Your task to perform on an android device: turn off smart reply in the gmail app Image 0: 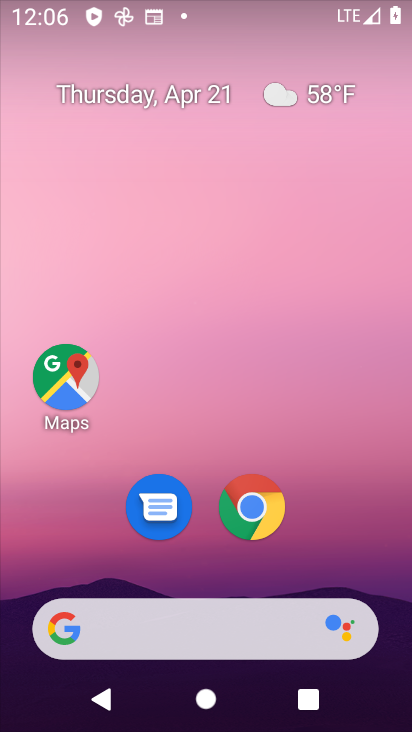
Step 0: drag from (301, 507) to (326, 61)
Your task to perform on an android device: turn off smart reply in the gmail app Image 1: 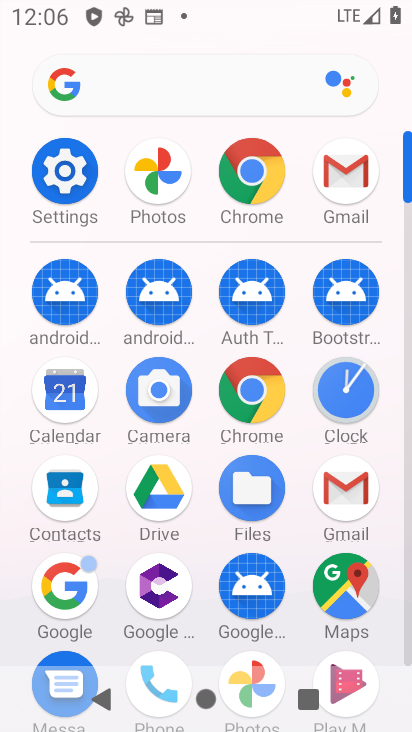
Step 1: click (352, 508)
Your task to perform on an android device: turn off smart reply in the gmail app Image 2: 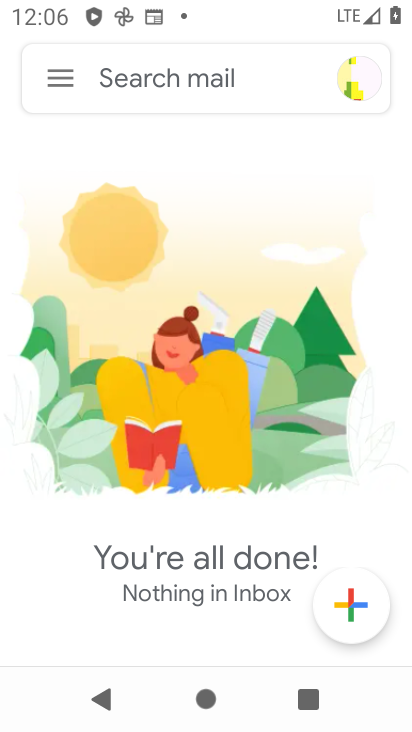
Step 2: click (63, 79)
Your task to perform on an android device: turn off smart reply in the gmail app Image 3: 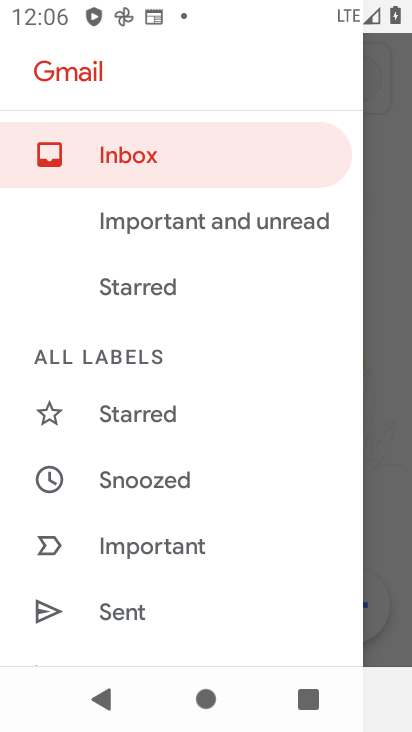
Step 3: drag from (282, 547) to (296, 375)
Your task to perform on an android device: turn off smart reply in the gmail app Image 4: 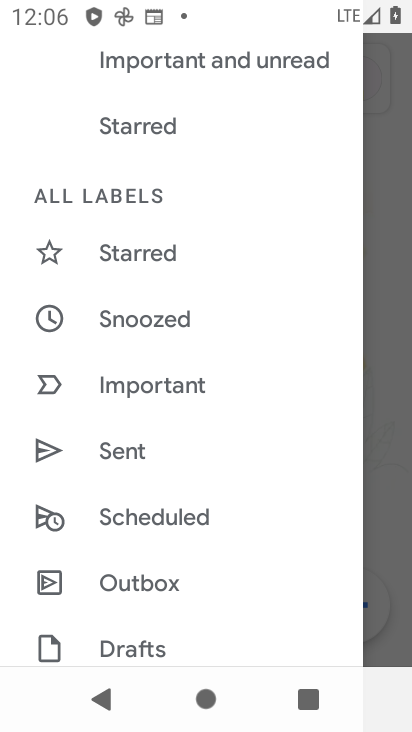
Step 4: drag from (278, 574) to (279, 381)
Your task to perform on an android device: turn off smart reply in the gmail app Image 5: 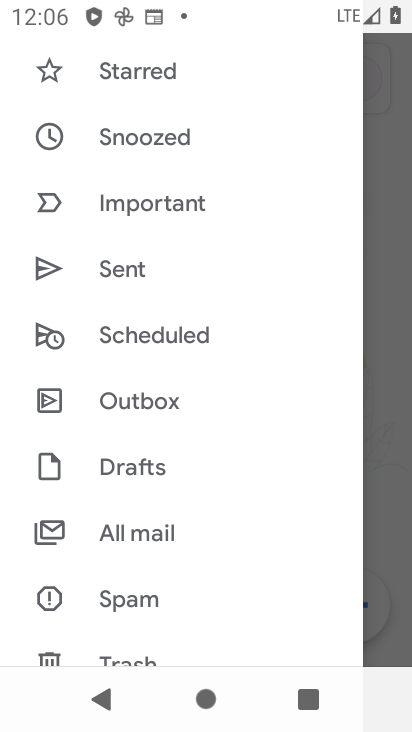
Step 5: drag from (271, 525) to (278, 341)
Your task to perform on an android device: turn off smart reply in the gmail app Image 6: 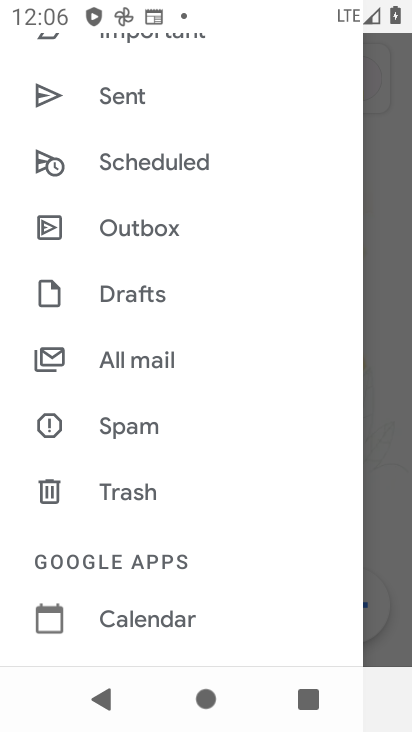
Step 6: drag from (263, 557) to (268, 372)
Your task to perform on an android device: turn off smart reply in the gmail app Image 7: 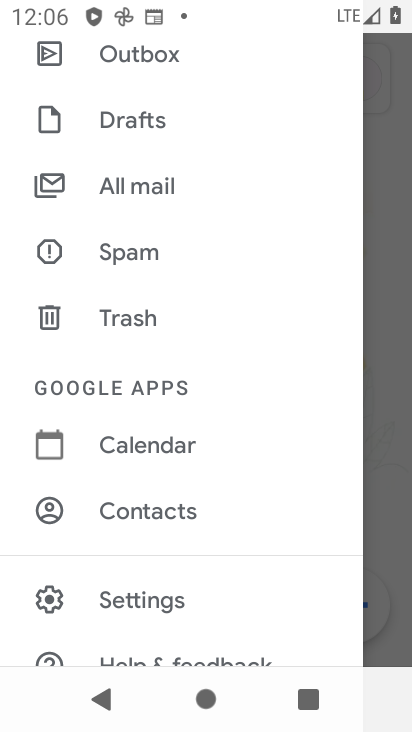
Step 7: drag from (267, 605) to (280, 419)
Your task to perform on an android device: turn off smart reply in the gmail app Image 8: 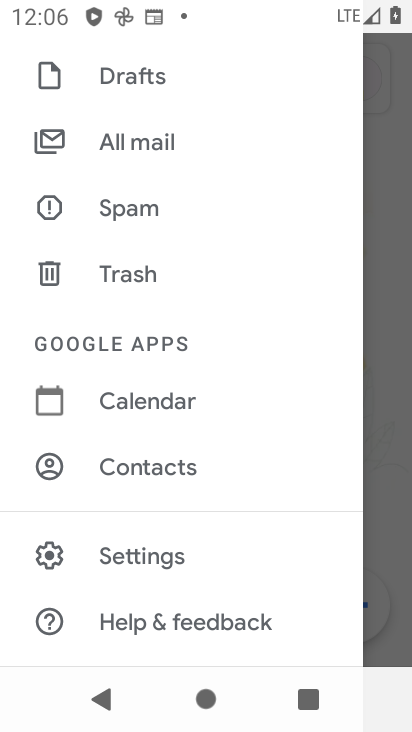
Step 8: click (175, 556)
Your task to perform on an android device: turn off smart reply in the gmail app Image 9: 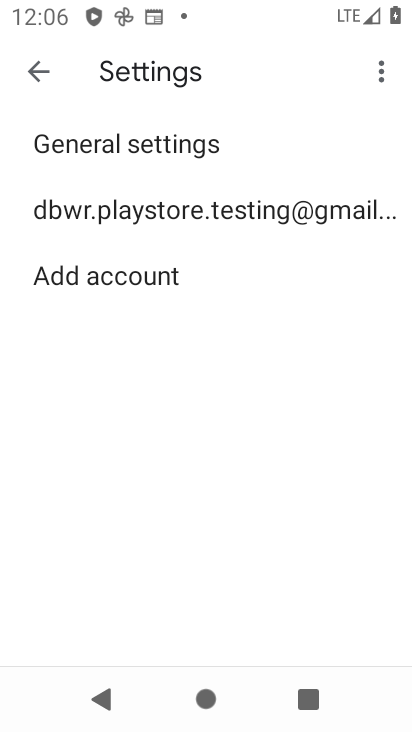
Step 9: click (231, 205)
Your task to perform on an android device: turn off smart reply in the gmail app Image 10: 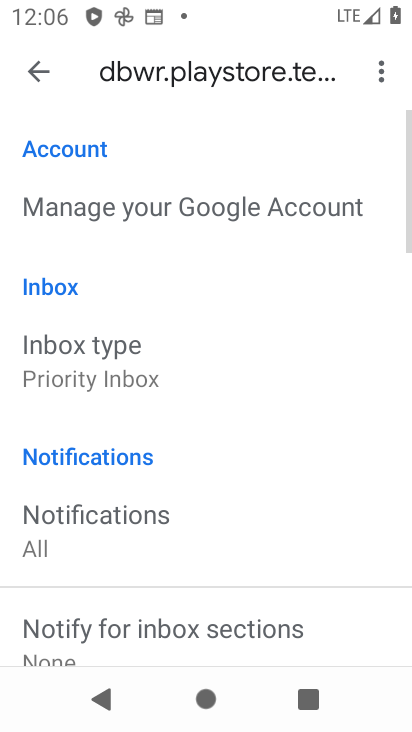
Step 10: drag from (258, 511) to (267, 341)
Your task to perform on an android device: turn off smart reply in the gmail app Image 11: 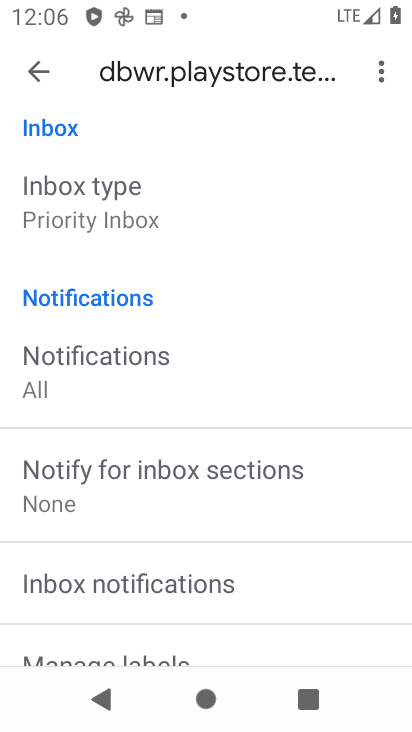
Step 11: drag from (328, 581) to (327, 363)
Your task to perform on an android device: turn off smart reply in the gmail app Image 12: 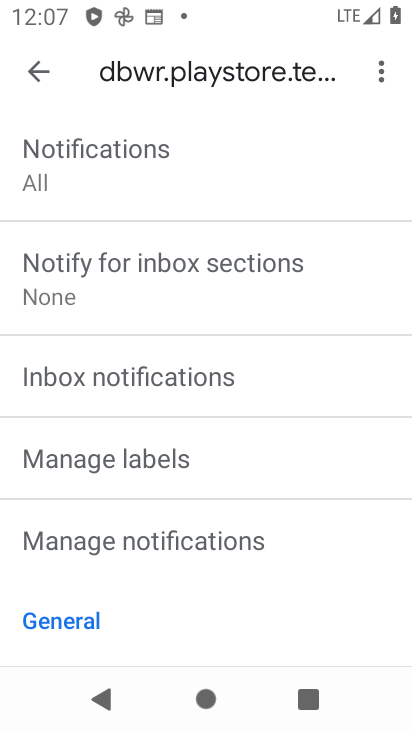
Step 12: drag from (331, 600) to (302, 384)
Your task to perform on an android device: turn off smart reply in the gmail app Image 13: 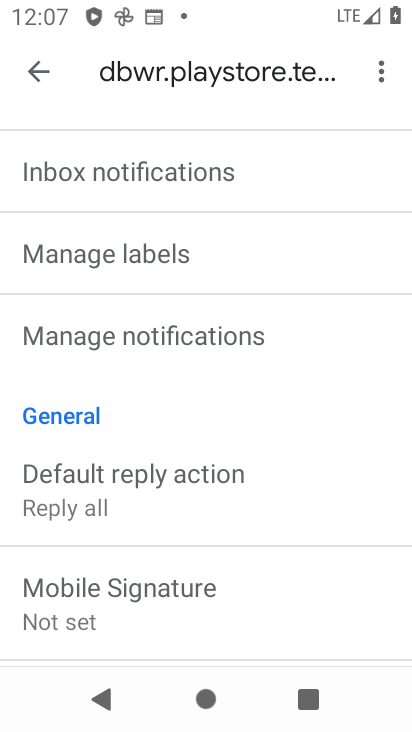
Step 13: drag from (318, 580) to (322, 383)
Your task to perform on an android device: turn off smart reply in the gmail app Image 14: 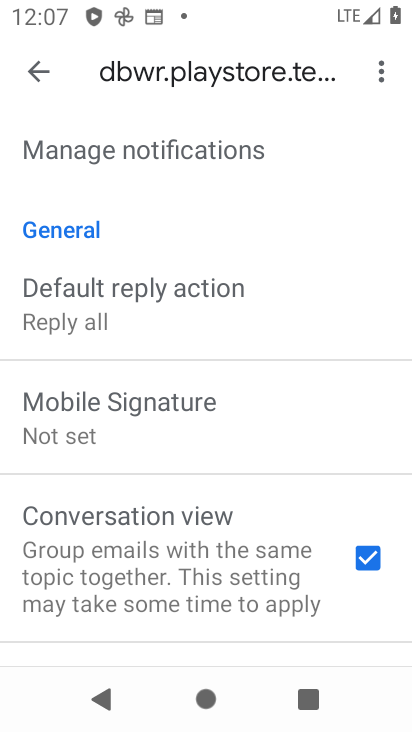
Step 14: drag from (328, 589) to (328, 334)
Your task to perform on an android device: turn off smart reply in the gmail app Image 15: 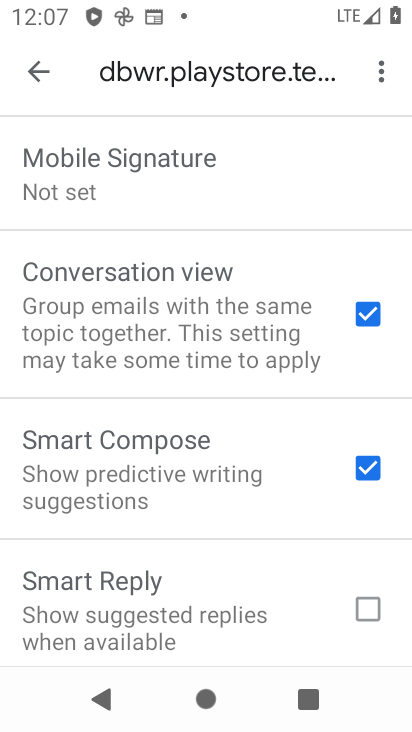
Step 15: drag from (284, 568) to (289, 247)
Your task to perform on an android device: turn off smart reply in the gmail app Image 16: 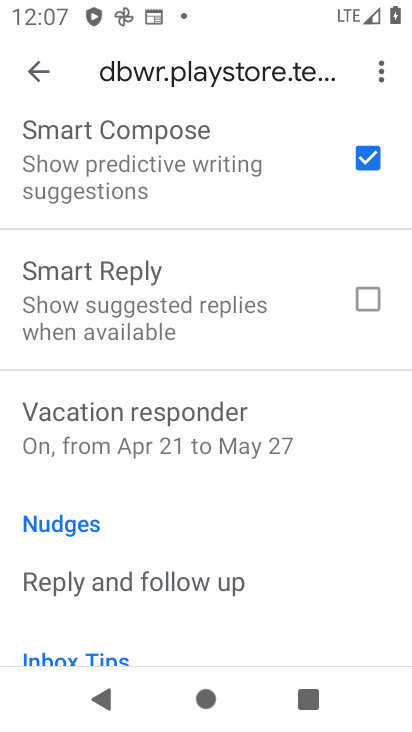
Step 16: click (156, 298)
Your task to perform on an android device: turn off smart reply in the gmail app Image 17: 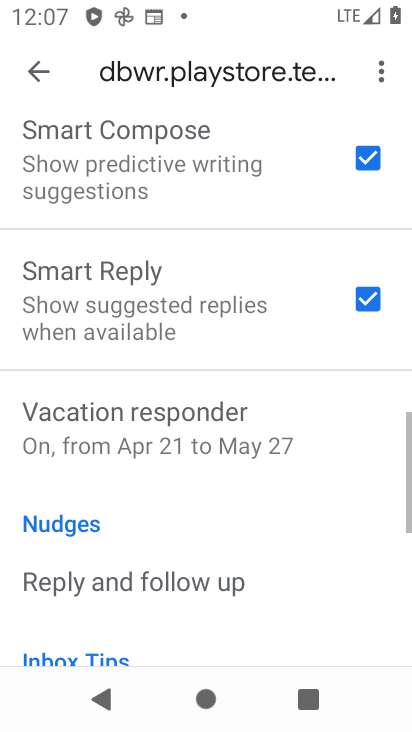
Step 17: click (158, 299)
Your task to perform on an android device: turn off smart reply in the gmail app Image 18: 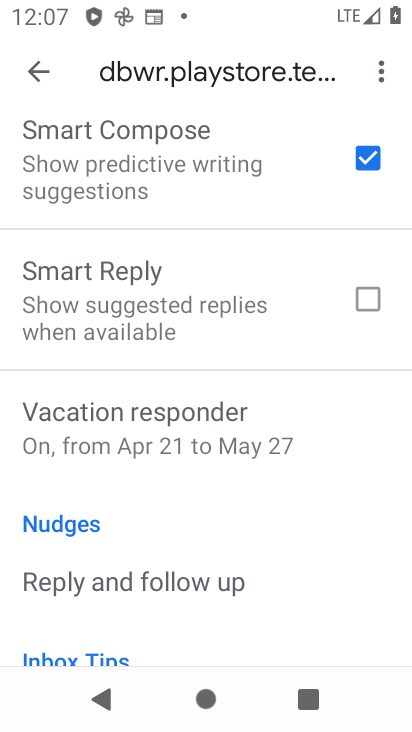
Step 18: task complete